Your task to perform on an android device: check android version Image 0: 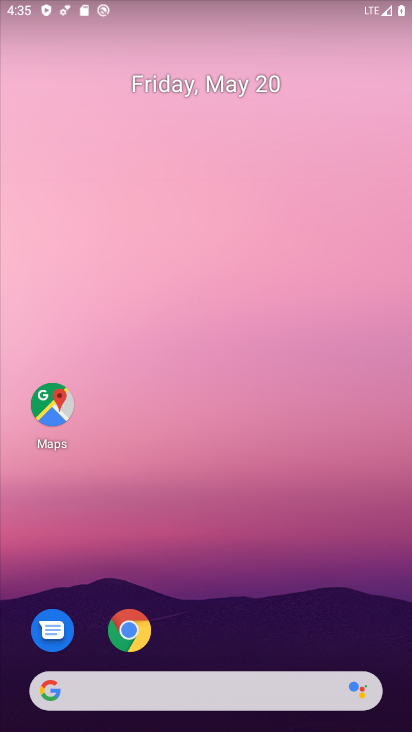
Step 0: drag from (213, 477) to (260, 53)
Your task to perform on an android device: check android version Image 1: 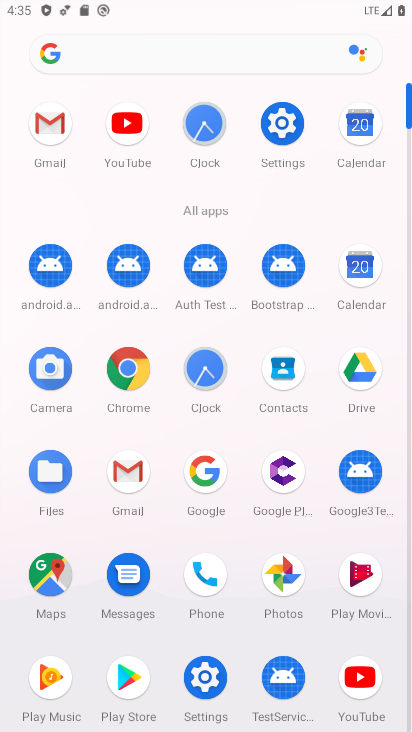
Step 1: click (281, 121)
Your task to perform on an android device: check android version Image 2: 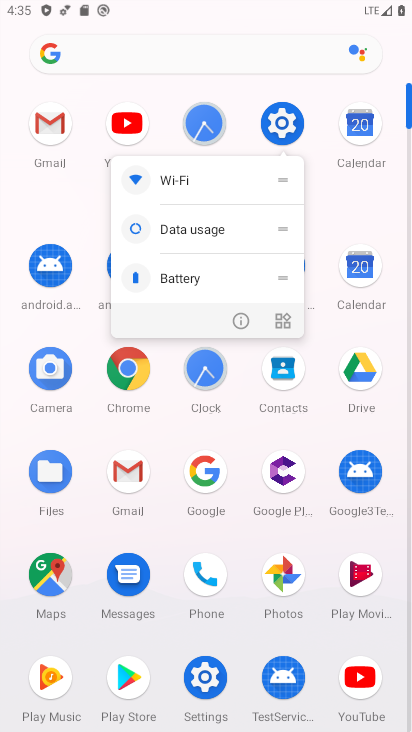
Step 2: click (286, 113)
Your task to perform on an android device: check android version Image 3: 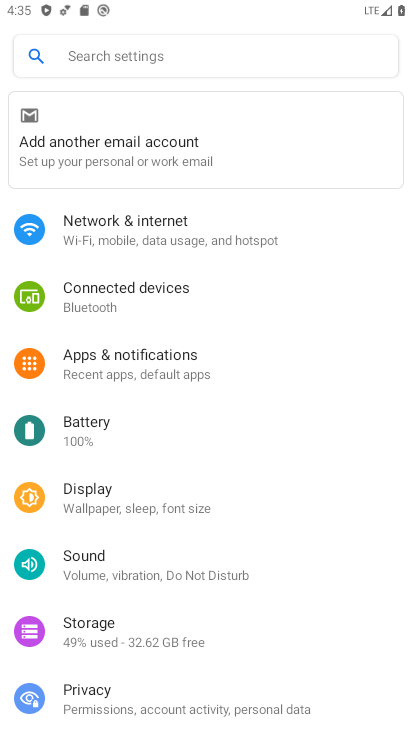
Step 3: drag from (249, 618) to (295, 73)
Your task to perform on an android device: check android version Image 4: 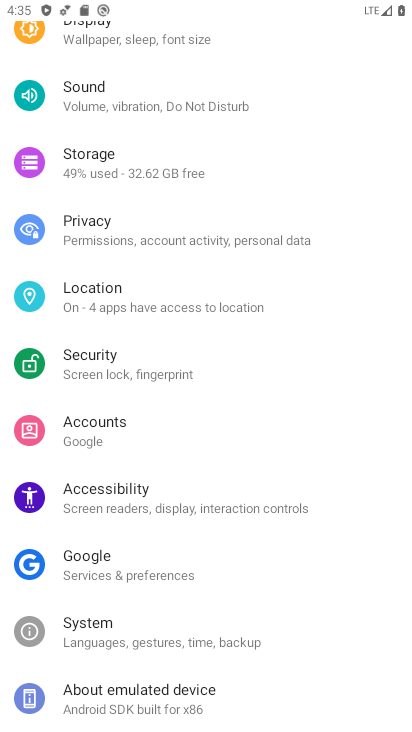
Step 4: click (229, 700)
Your task to perform on an android device: check android version Image 5: 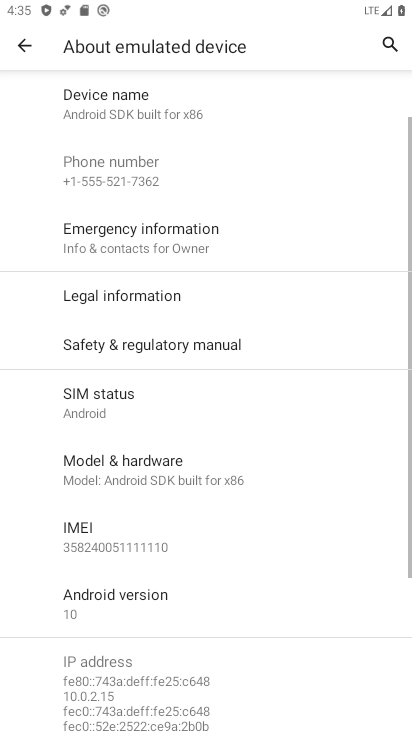
Step 5: click (229, 606)
Your task to perform on an android device: check android version Image 6: 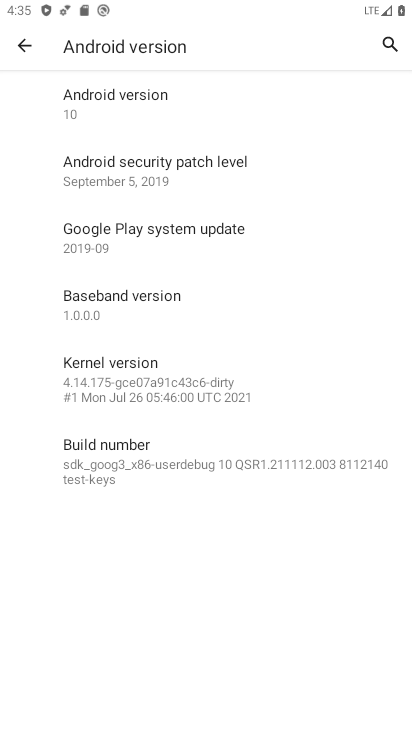
Step 6: task complete